Your task to perform on an android device: Search for vegetarian restaurants on Maps Image 0: 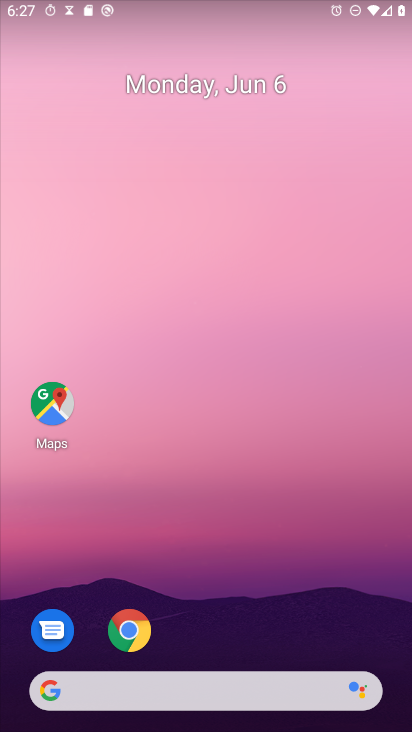
Step 0: click (35, 394)
Your task to perform on an android device: Search for vegetarian restaurants on Maps Image 1: 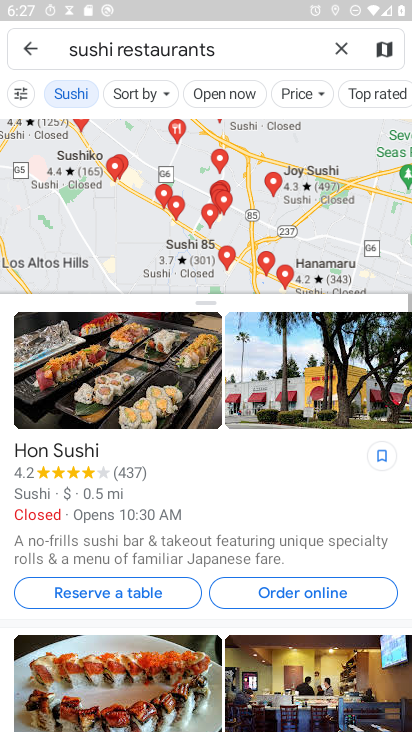
Step 1: click (338, 43)
Your task to perform on an android device: Search for vegetarian restaurants on Maps Image 2: 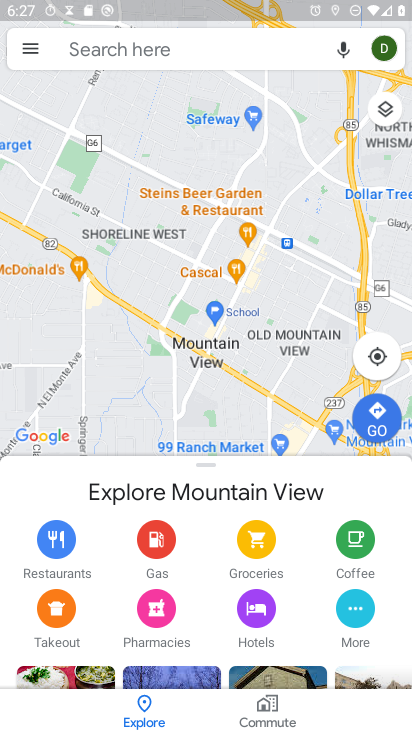
Step 2: click (176, 52)
Your task to perform on an android device: Search for vegetarian restaurants on Maps Image 3: 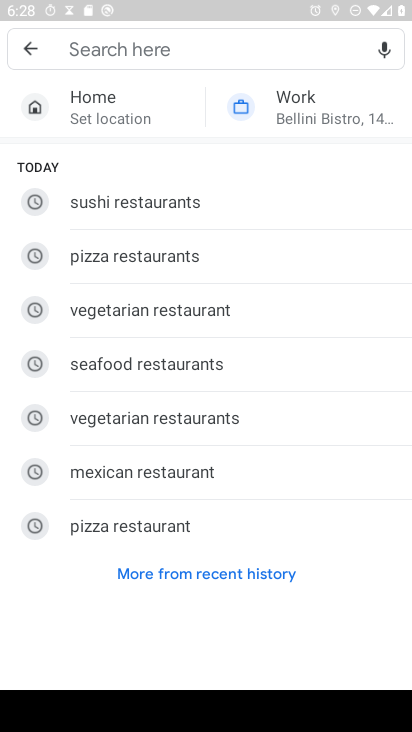
Step 3: click (158, 320)
Your task to perform on an android device: Search for vegetarian restaurants on Maps Image 4: 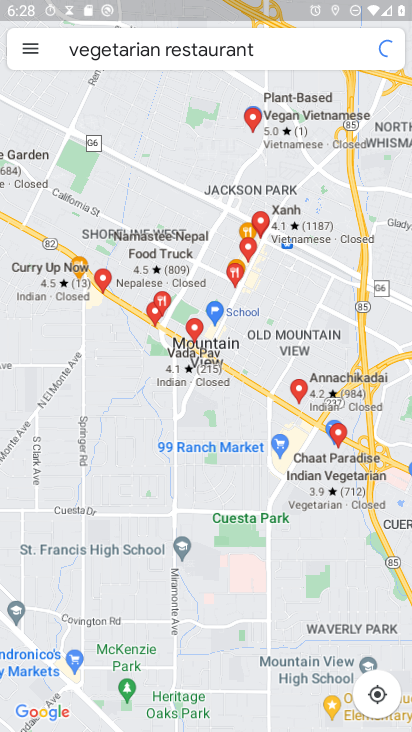
Step 4: task complete